Your task to perform on an android device: visit the assistant section in the google photos Image 0: 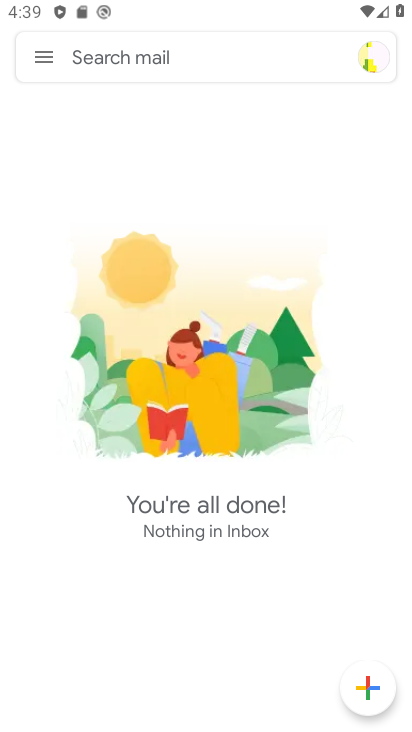
Step 0: press back button
Your task to perform on an android device: visit the assistant section in the google photos Image 1: 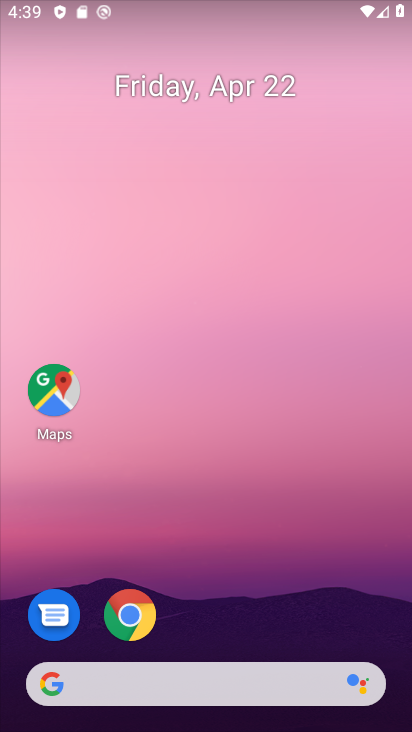
Step 1: drag from (314, 579) to (288, 47)
Your task to perform on an android device: visit the assistant section in the google photos Image 2: 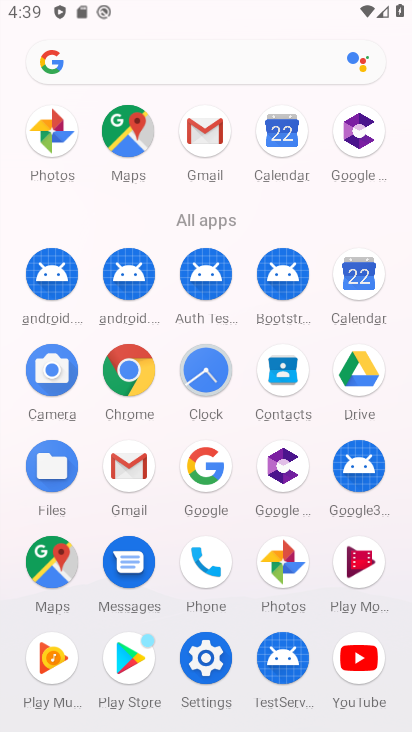
Step 2: drag from (8, 470) to (14, 201)
Your task to perform on an android device: visit the assistant section in the google photos Image 3: 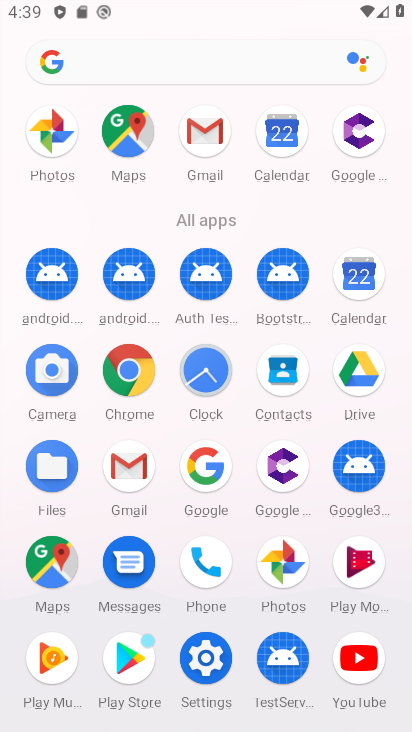
Step 3: drag from (9, 563) to (11, 371)
Your task to perform on an android device: visit the assistant section in the google photos Image 4: 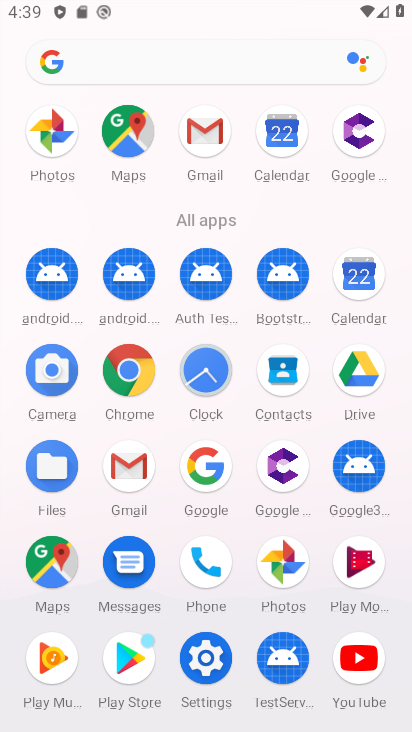
Step 4: click (274, 560)
Your task to perform on an android device: visit the assistant section in the google photos Image 5: 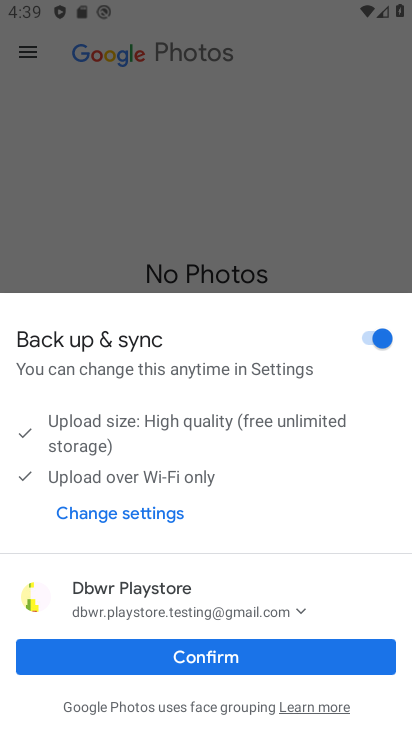
Step 5: click (226, 661)
Your task to perform on an android device: visit the assistant section in the google photos Image 6: 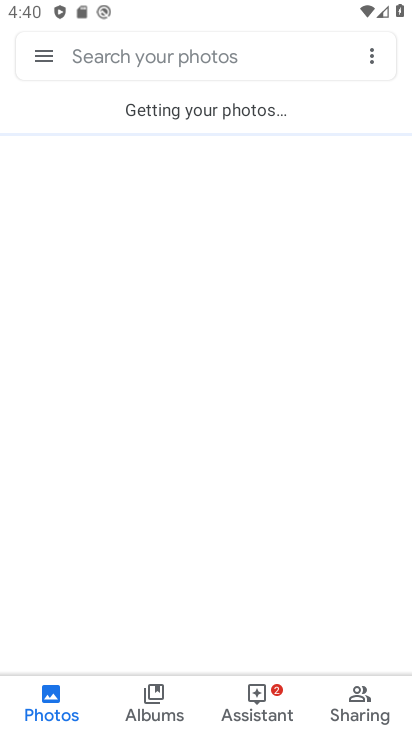
Step 6: click (245, 705)
Your task to perform on an android device: visit the assistant section in the google photos Image 7: 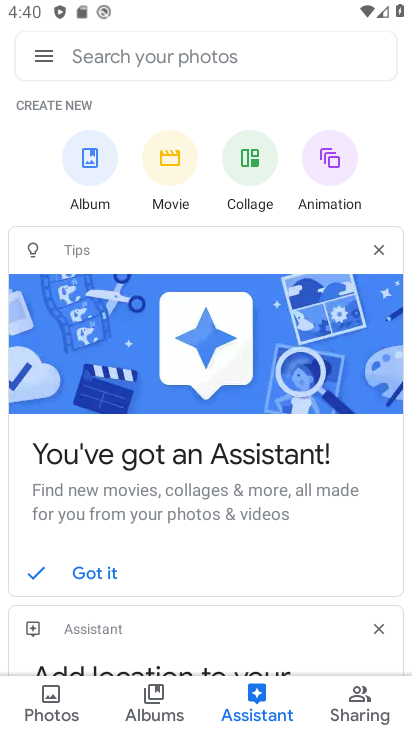
Step 7: task complete